Your task to perform on an android device: Open Chrome and go to the settings page Image 0: 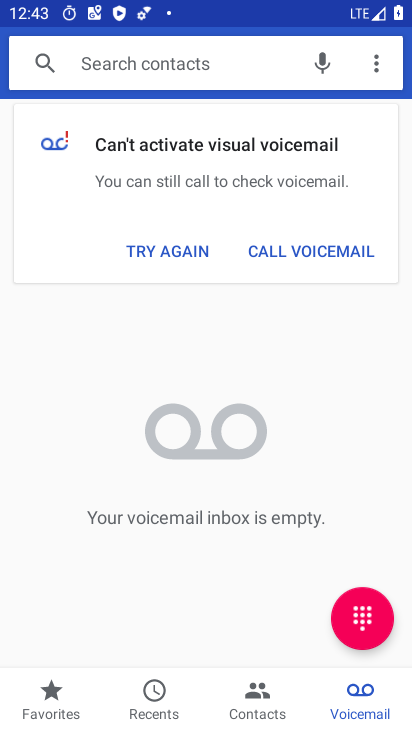
Step 0: press home button
Your task to perform on an android device: Open Chrome and go to the settings page Image 1: 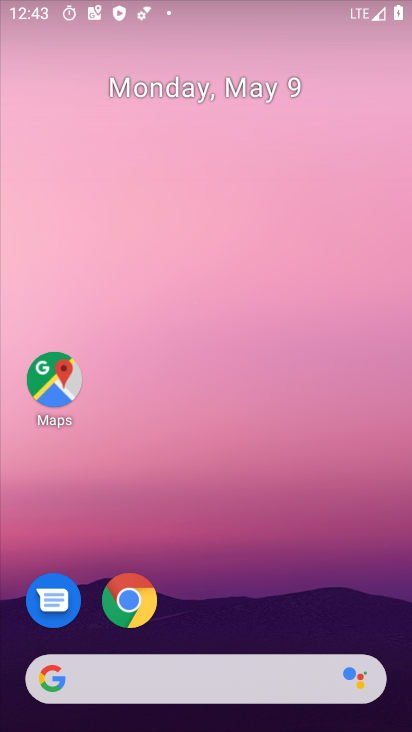
Step 1: drag from (312, 587) to (280, 200)
Your task to perform on an android device: Open Chrome and go to the settings page Image 2: 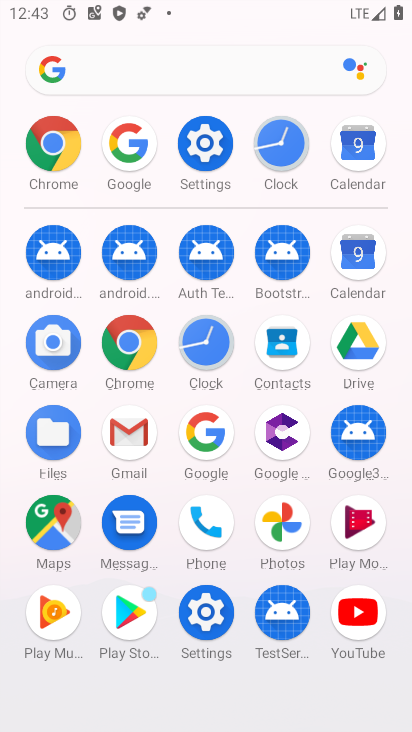
Step 2: click (134, 344)
Your task to perform on an android device: Open Chrome and go to the settings page Image 3: 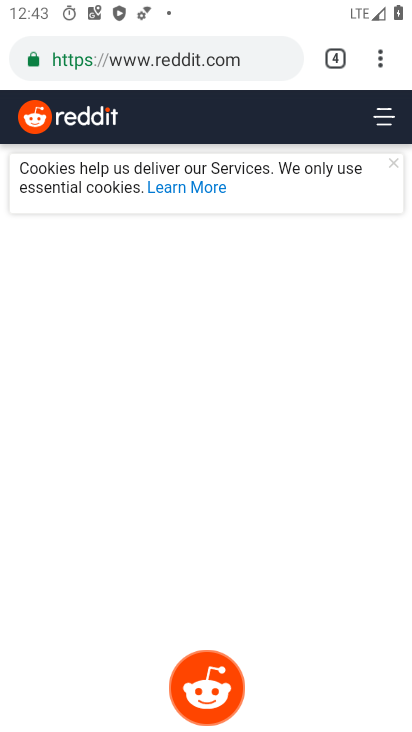
Step 3: click (380, 64)
Your task to perform on an android device: Open Chrome and go to the settings page Image 4: 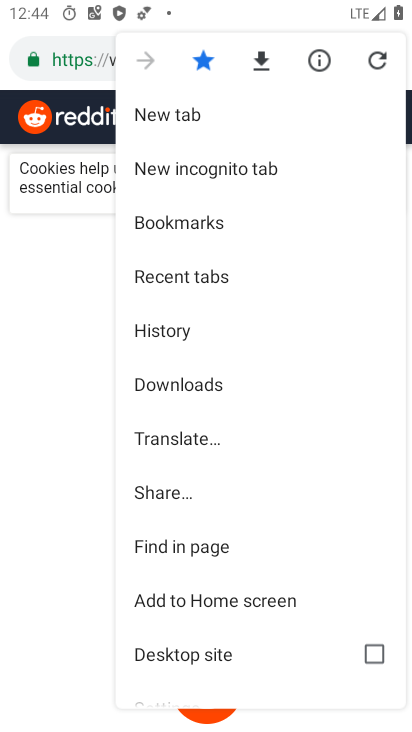
Step 4: drag from (229, 620) to (273, 348)
Your task to perform on an android device: Open Chrome and go to the settings page Image 5: 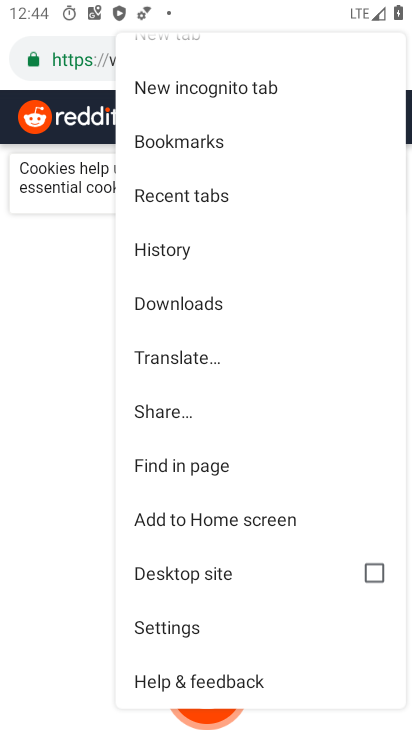
Step 5: click (202, 627)
Your task to perform on an android device: Open Chrome and go to the settings page Image 6: 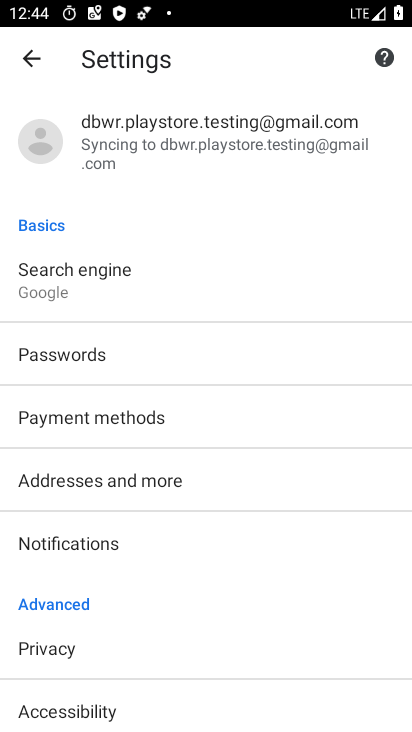
Step 6: task complete